Your task to perform on an android device: open chrome and create a bookmark for the current page Image 0: 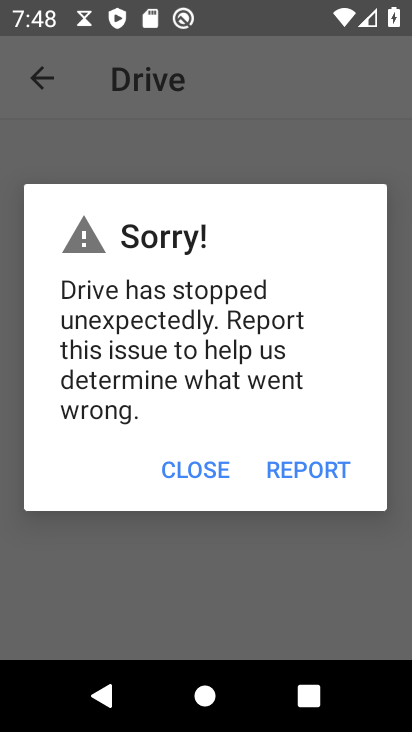
Step 0: press home button
Your task to perform on an android device: open chrome and create a bookmark for the current page Image 1: 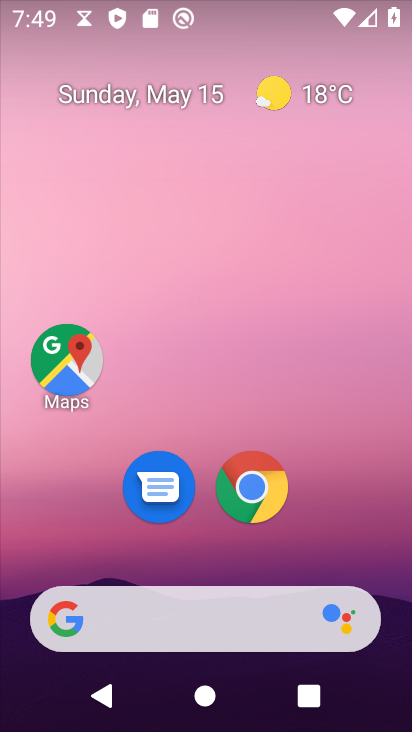
Step 1: click (256, 484)
Your task to perform on an android device: open chrome and create a bookmark for the current page Image 2: 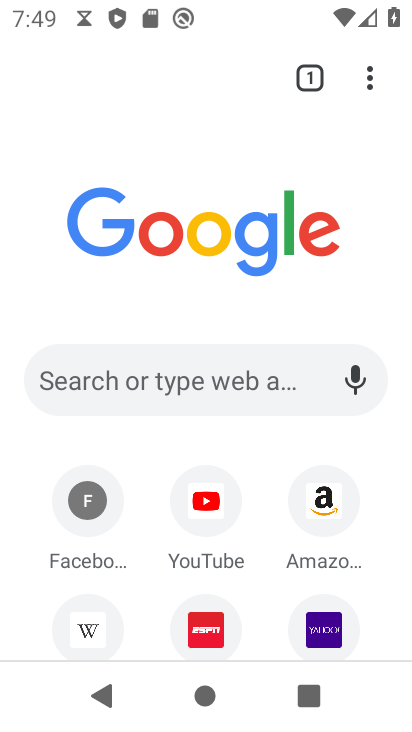
Step 2: click (379, 70)
Your task to perform on an android device: open chrome and create a bookmark for the current page Image 3: 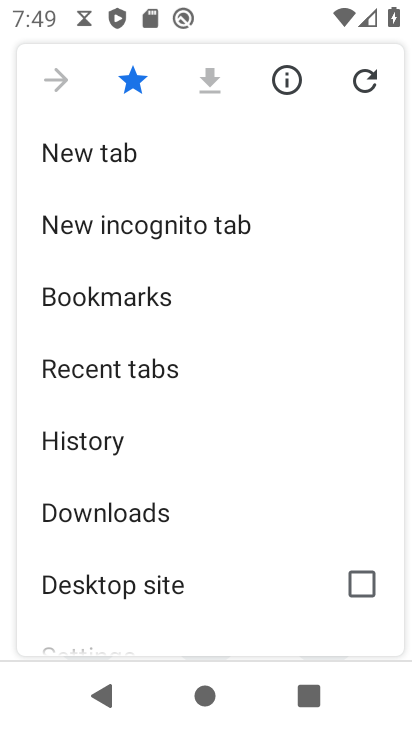
Step 3: task complete